Your task to perform on an android device: turn smart compose on in the gmail app Image 0: 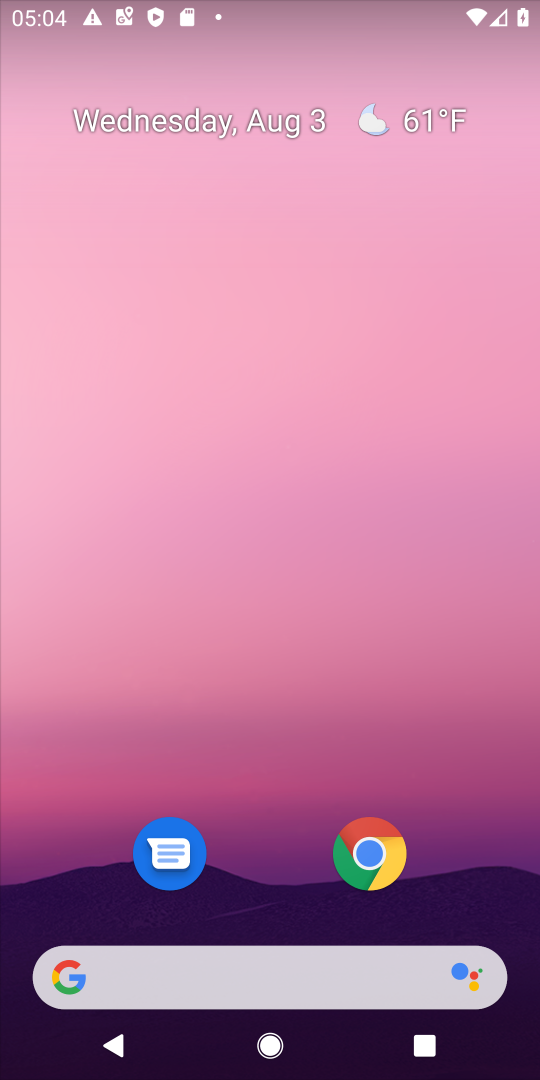
Step 0: drag from (274, 674) to (267, 121)
Your task to perform on an android device: turn smart compose on in the gmail app Image 1: 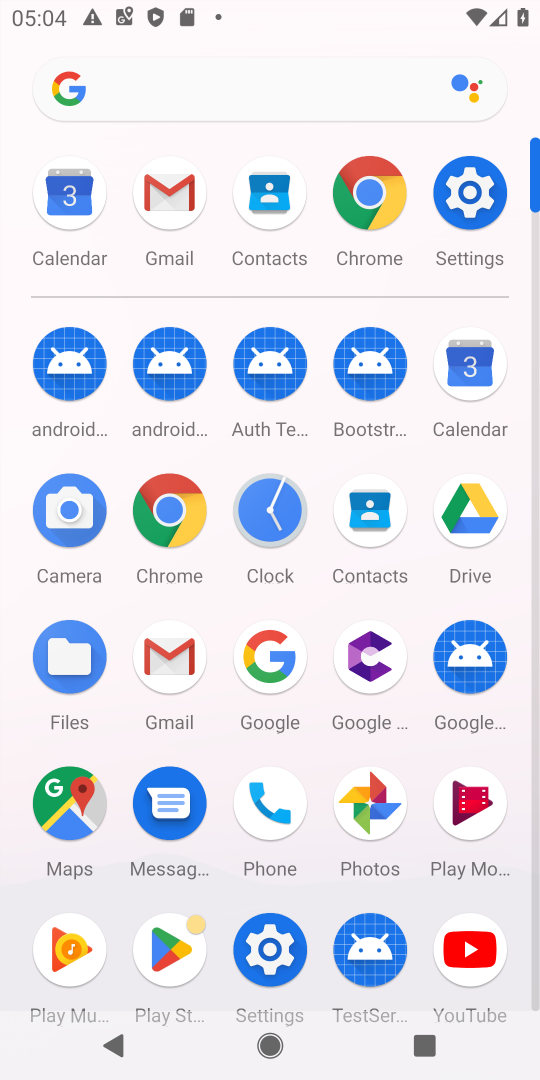
Step 1: click (162, 660)
Your task to perform on an android device: turn smart compose on in the gmail app Image 2: 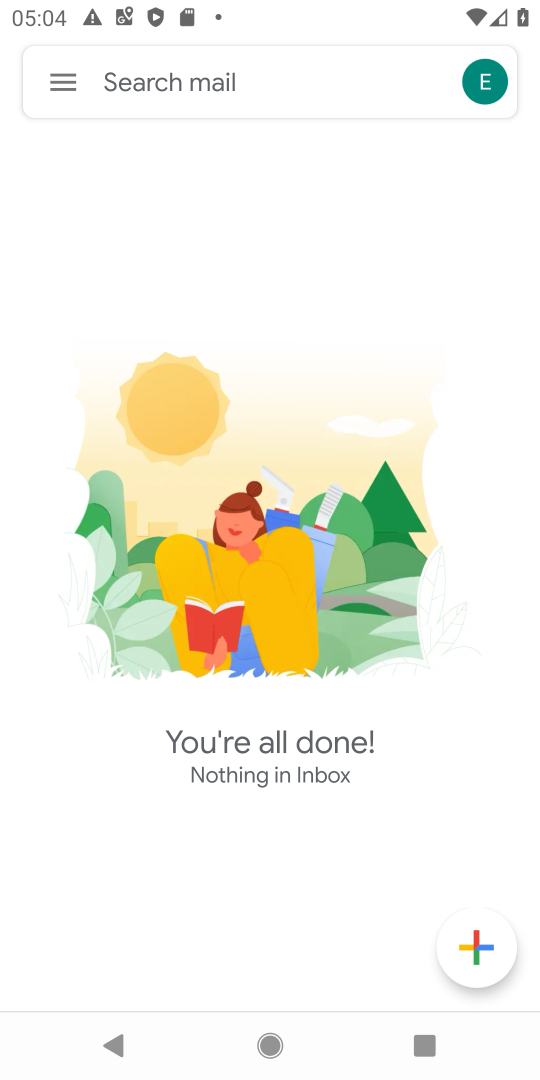
Step 2: click (64, 71)
Your task to perform on an android device: turn smart compose on in the gmail app Image 3: 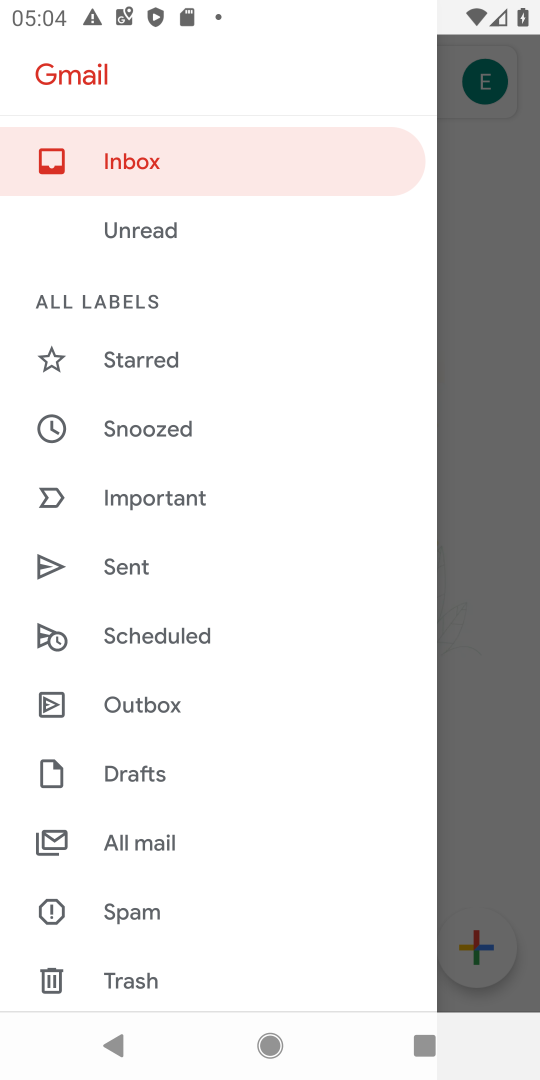
Step 3: drag from (134, 970) to (229, 363)
Your task to perform on an android device: turn smart compose on in the gmail app Image 4: 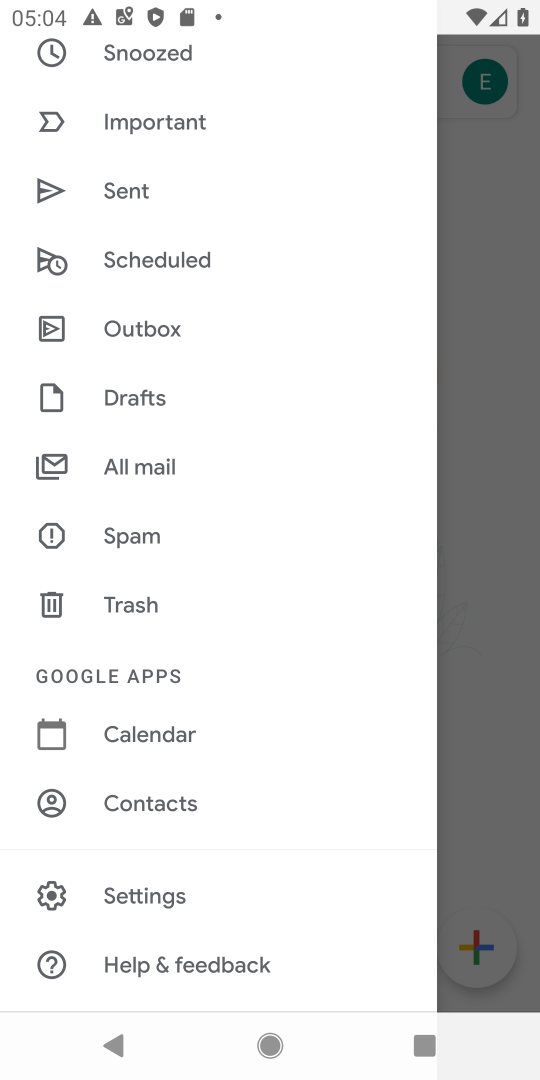
Step 4: click (124, 889)
Your task to perform on an android device: turn smart compose on in the gmail app Image 5: 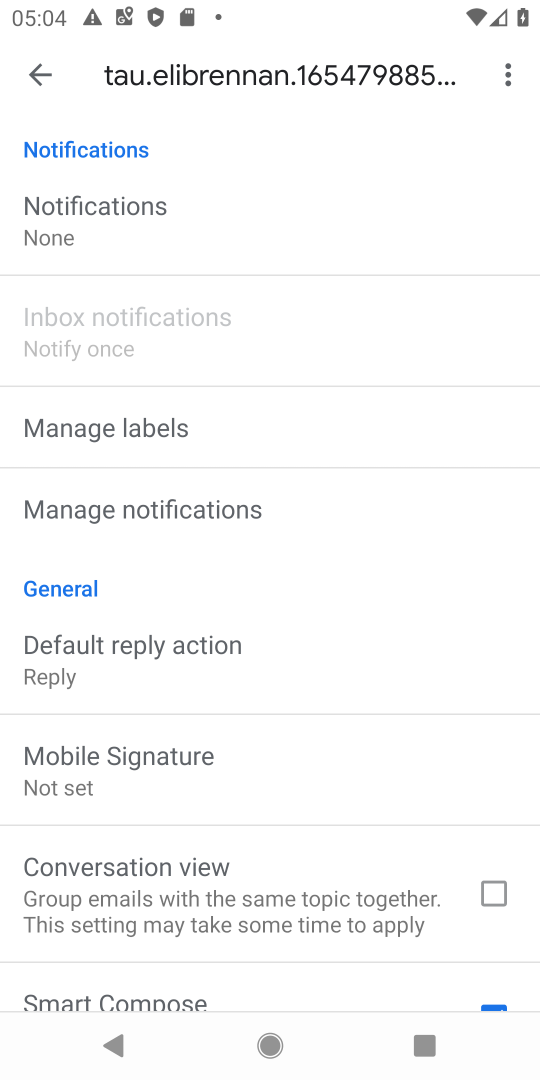
Step 5: task complete